Your task to perform on an android device: Open the files app Image 0: 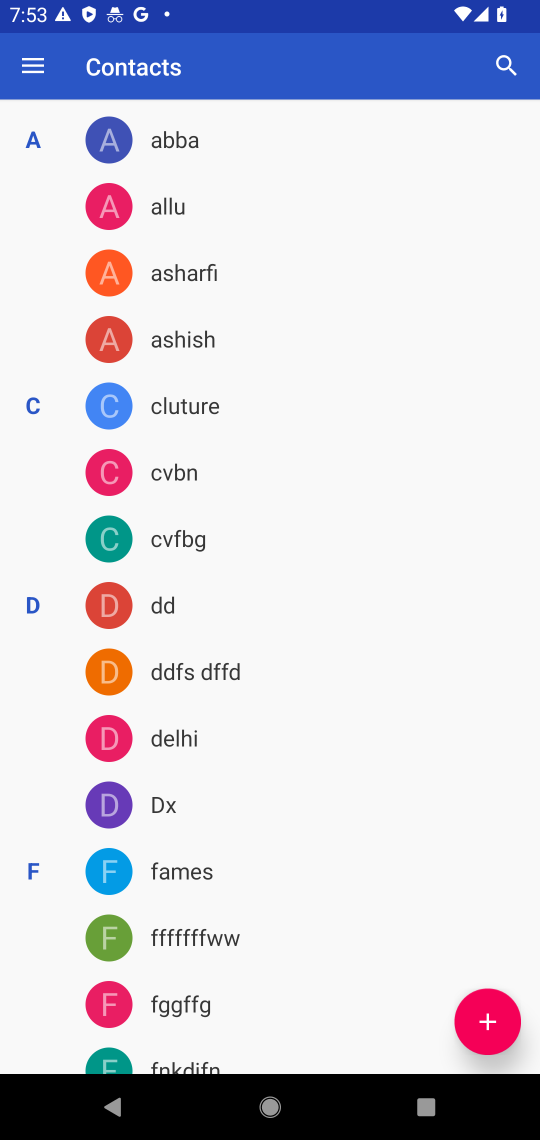
Step 0: press home button
Your task to perform on an android device: Open the files app Image 1: 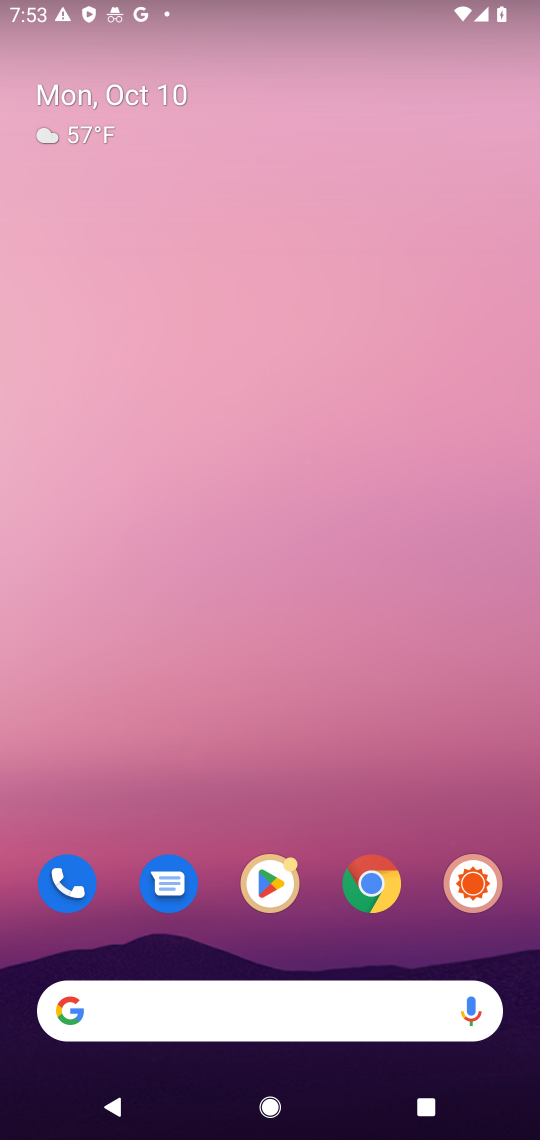
Step 1: drag from (375, 528) to (267, 1)
Your task to perform on an android device: Open the files app Image 2: 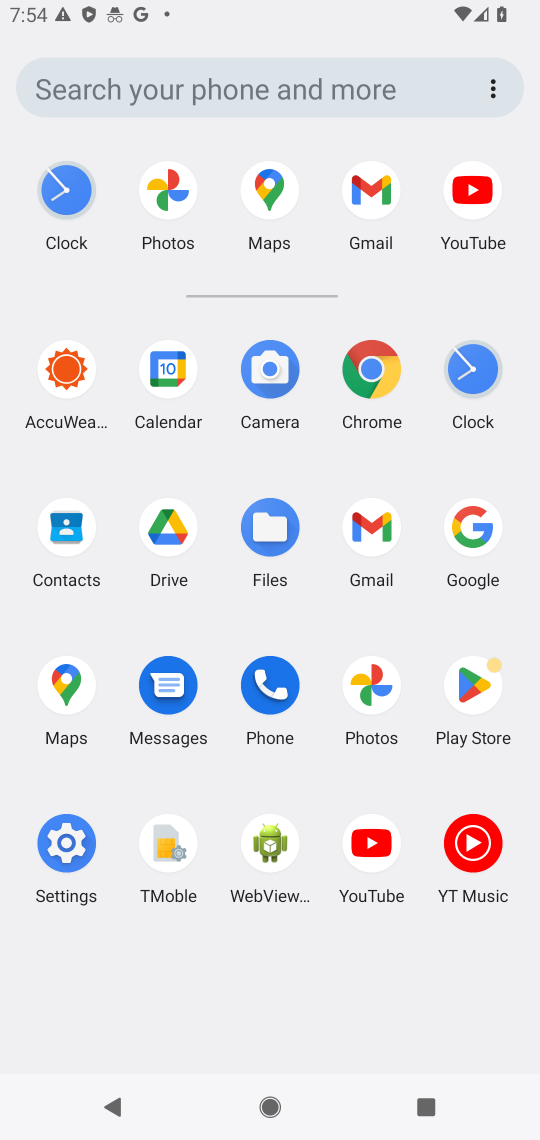
Step 2: click (258, 535)
Your task to perform on an android device: Open the files app Image 3: 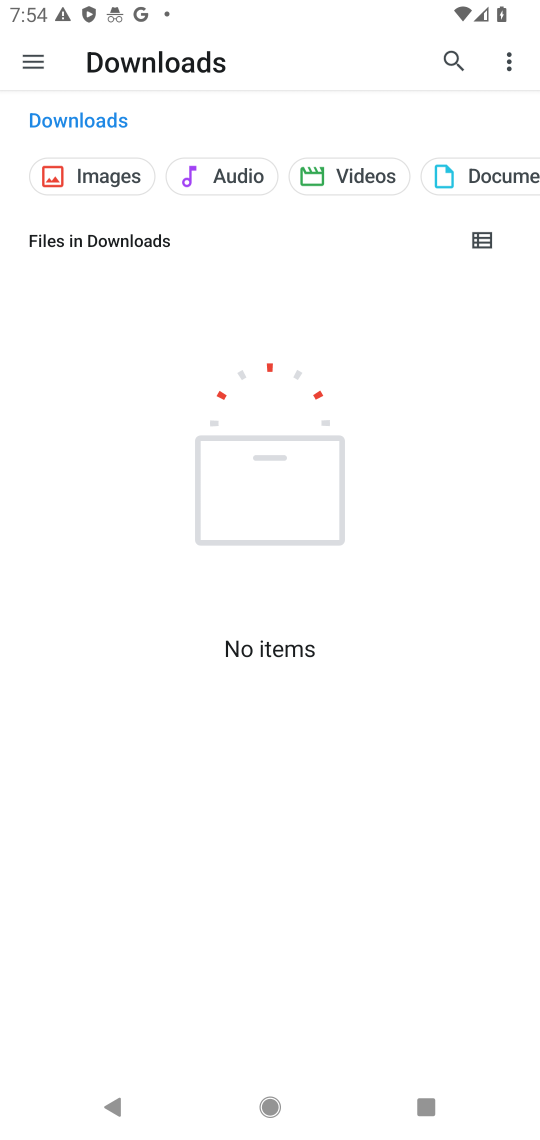
Step 3: task complete